Your task to perform on an android device: Go to calendar. Show me events next week Image 0: 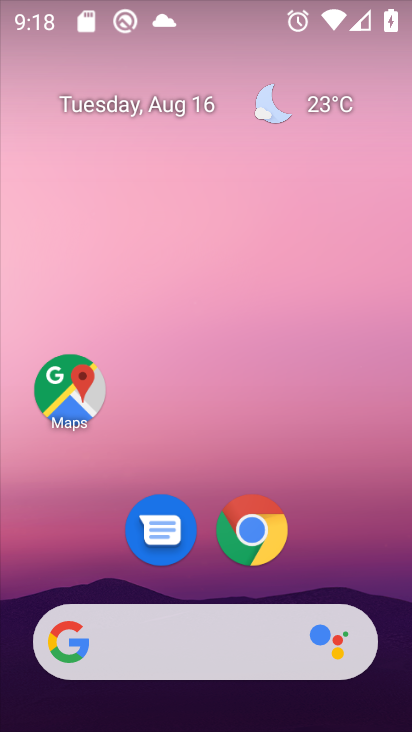
Step 0: drag from (314, 523) to (324, 44)
Your task to perform on an android device: Go to calendar. Show me events next week Image 1: 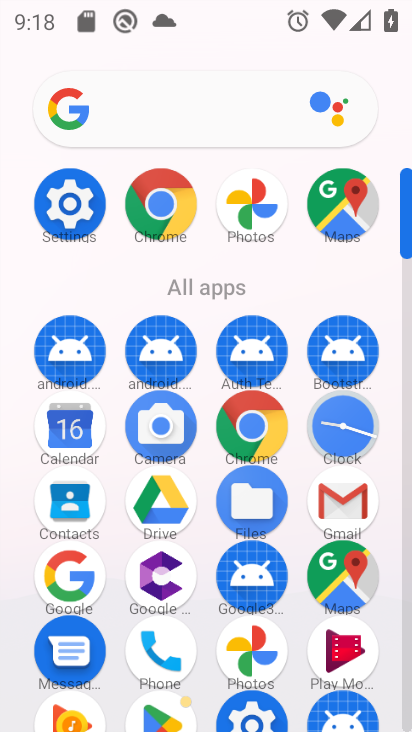
Step 1: click (61, 440)
Your task to perform on an android device: Go to calendar. Show me events next week Image 2: 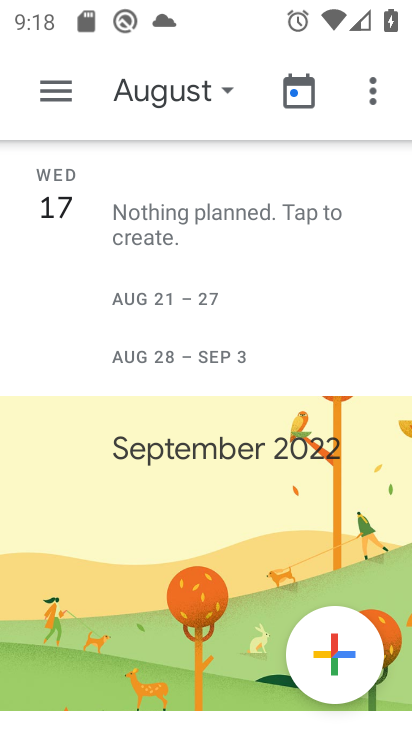
Step 2: click (135, 91)
Your task to perform on an android device: Go to calendar. Show me events next week Image 3: 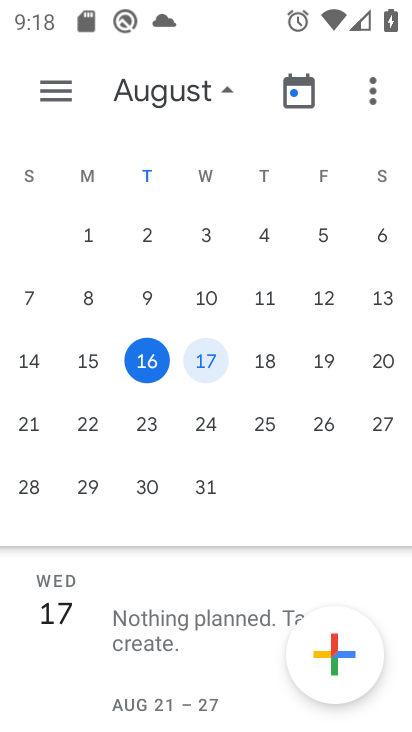
Step 3: click (149, 432)
Your task to perform on an android device: Go to calendar. Show me events next week Image 4: 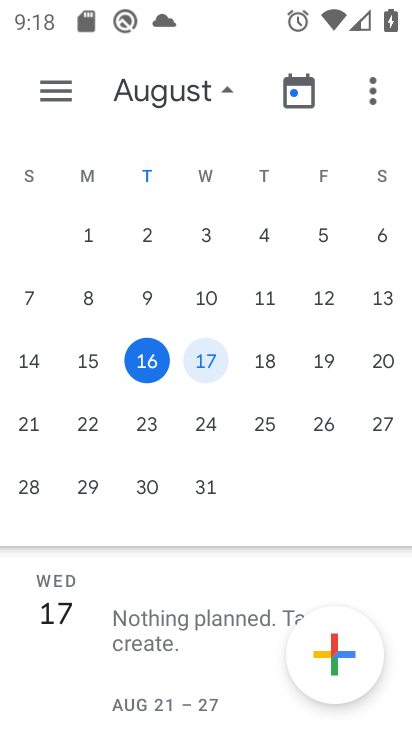
Step 4: click (149, 422)
Your task to perform on an android device: Go to calendar. Show me events next week Image 5: 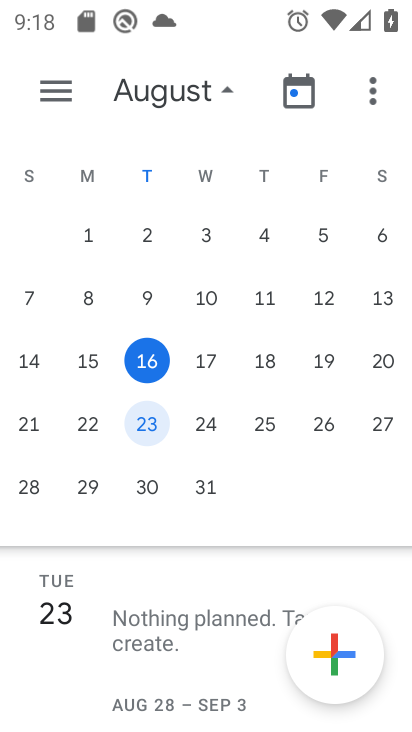
Step 5: click (40, 86)
Your task to perform on an android device: Go to calendar. Show me events next week Image 6: 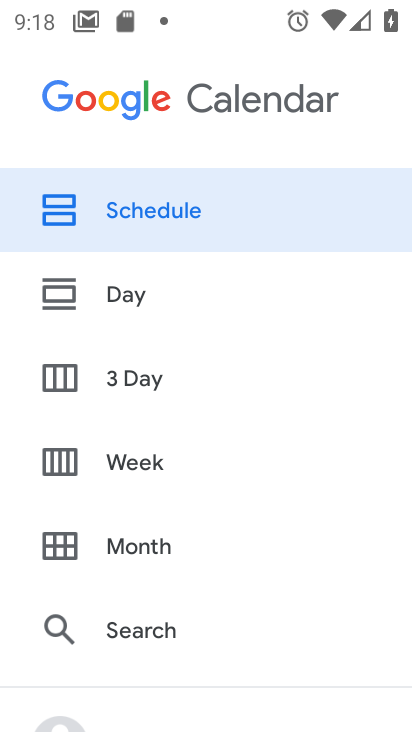
Step 6: click (120, 461)
Your task to perform on an android device: Go to calendar. Show me events next week Image 7: 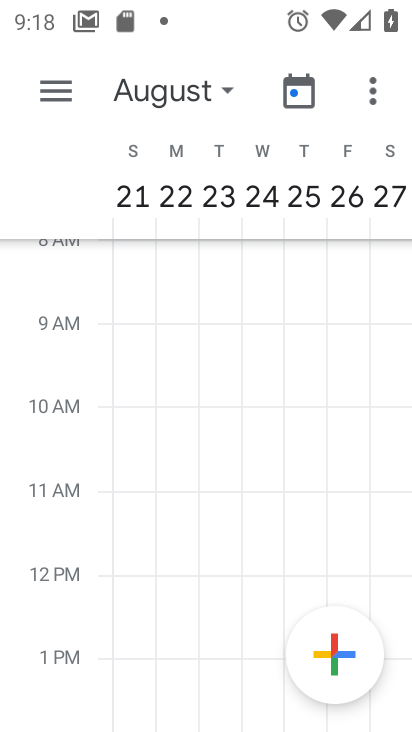
Step 7: task complete